Your task to perform on an android device: Open Reddit.com Image 0: 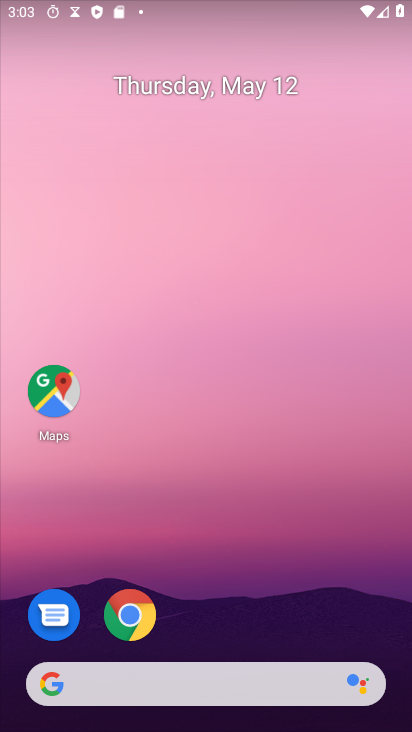
Step 0: click (123, 610)
Your task to perform on an android device: Open Reddit.com Image 1: 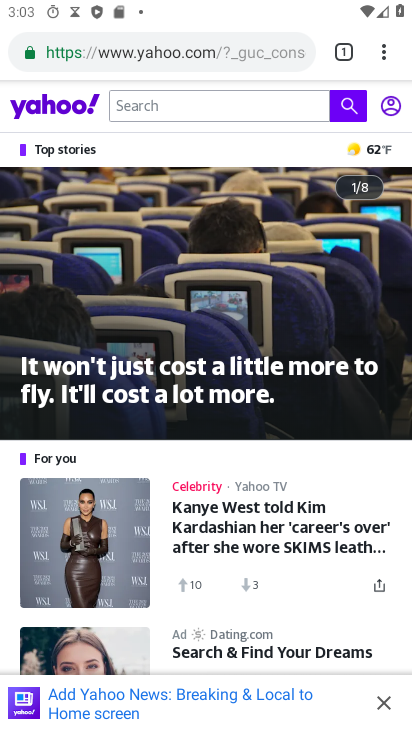
Step 1: click (186, 49)
Your task to perform on an android device: Open Reddit.com Image 2: 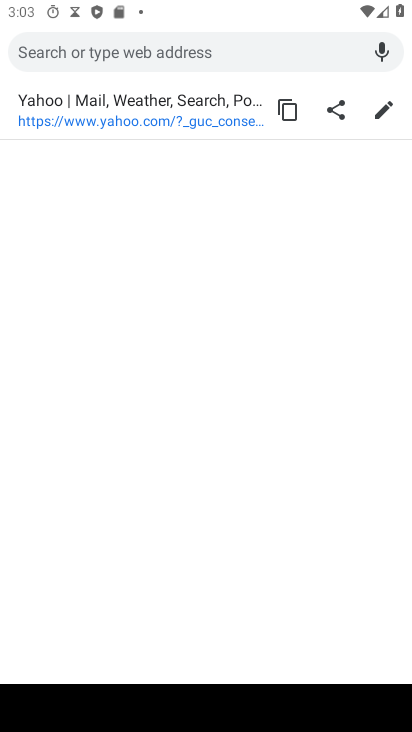
Step 2: type "Reddit.com"
Your task to perform on an android device: Open Reddit.com Image 3: 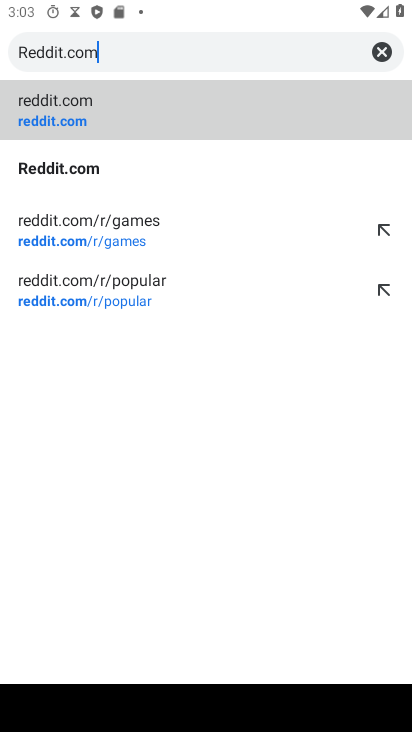
Step 3: type ""
Your task to perform on an android device: Open Reddit.com Image 4: 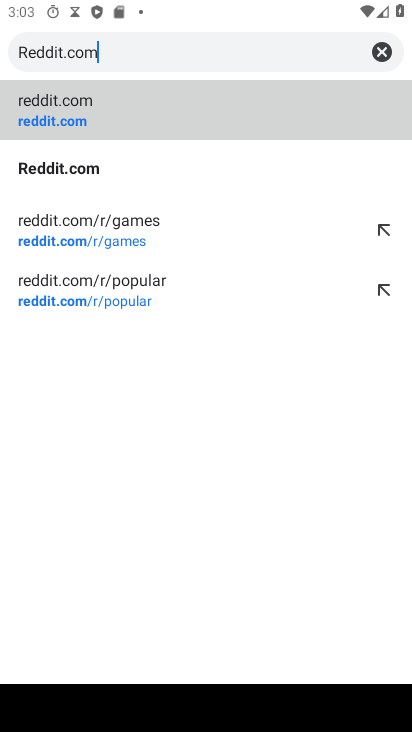
Step 4: click (189, 178)
Your task to perform on an android device: Open Reddit.com Image 5: 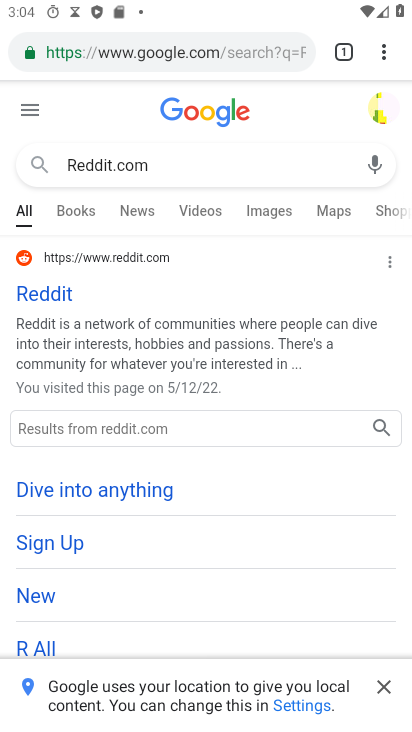
Step 5: click (45, 288)
Your task to perform on an android device: Open Reddit.com Image 6: 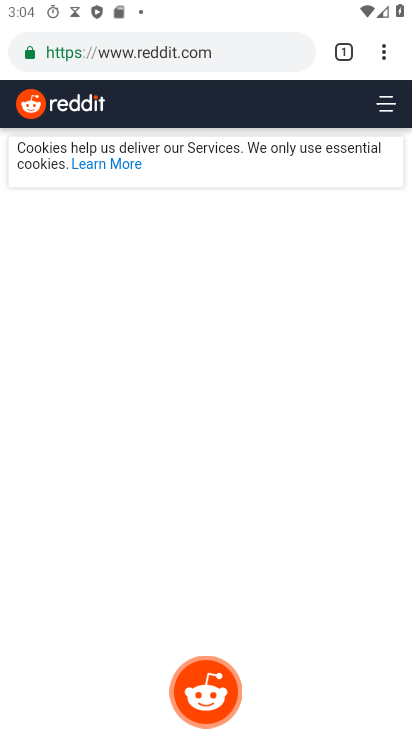
Step 6: task complete